Your task to perform on an android device: Empty the shopping cart on amazon. Search for "bose soundsport free" on amazon, select the first entry, add it to the cart, then select checkout. Image 0: 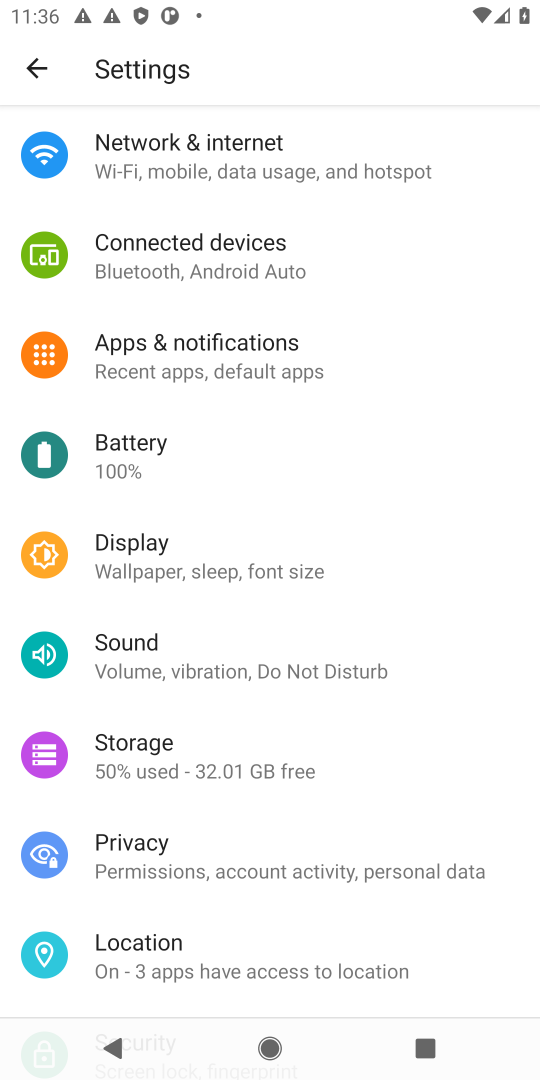
Step 0: press home button
Your task to perform on an android device: Empty the shopping cart on amazon. Search for "bose soundsport free" on amazon, select the first entry, add it to the cart, then select checkout. Image 1: 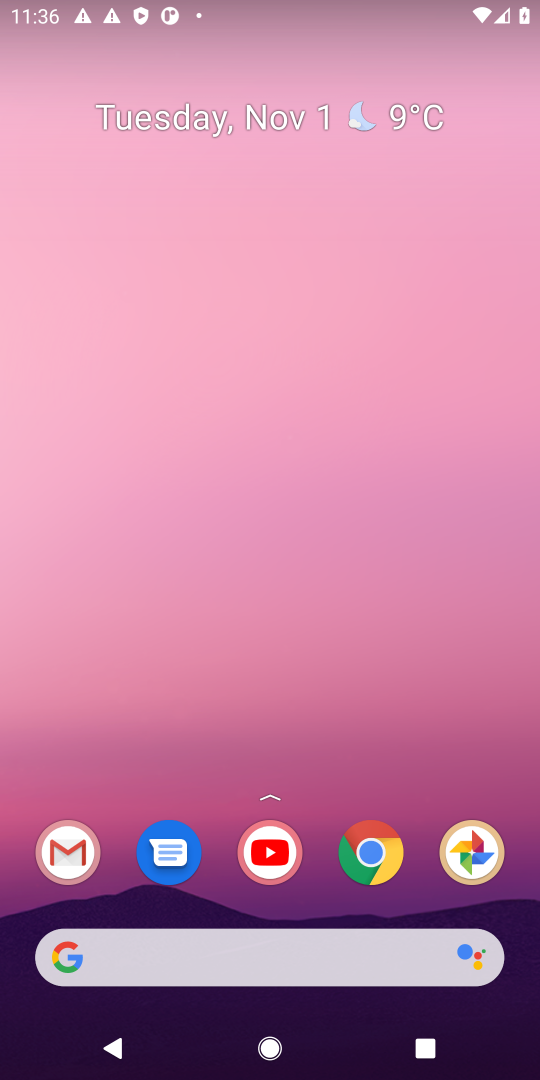
Step 1: drag from (314, 888) to (341, 209)
Your task to perform on an android device: Empty the shopping cart on amazon. Search for "bose soundsport free" on amazon, select the first entry, add it to the cart, then select checkout. Image 2: 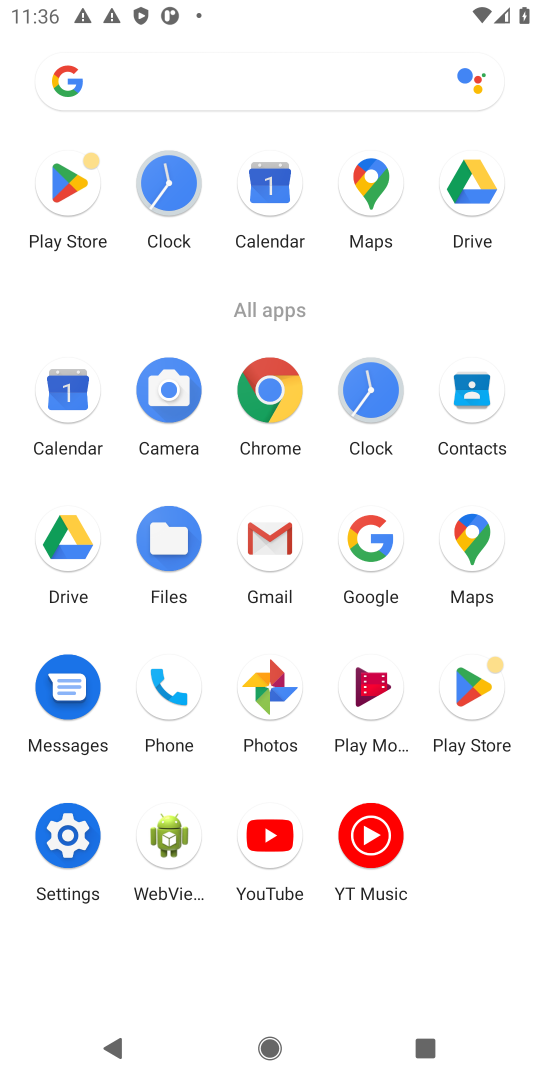
Step 2: click (383, 567)
Your task to perform on an android device: Empty the shopping cart on amazon. Search for "bose soundsport free" on amazon, select the first entry, add it to the cart, then select checkout. Image 3: 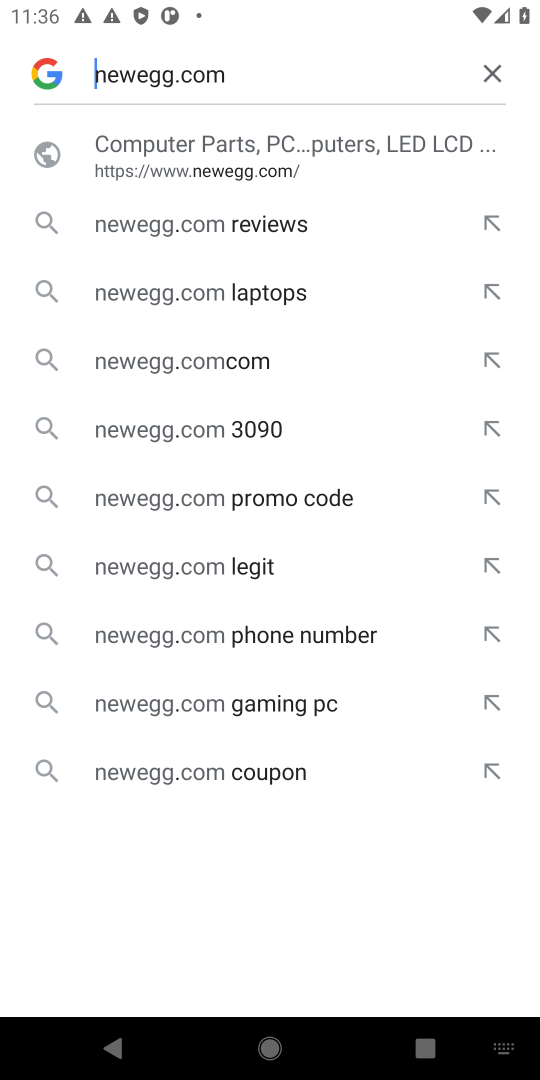
Step 3: click (499, 75)
Your task to perform on an android device: Empty the shopping cart on amazon. Search for "bose soundsport free" on amazon, select the first entry, add it to the cart, then select checkout. Image 4: 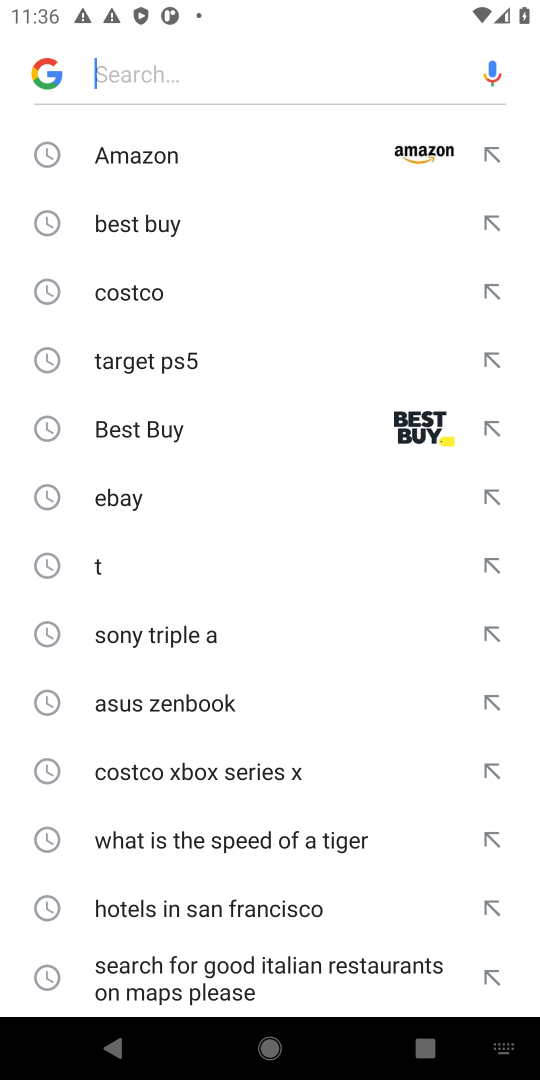
Step 4: type "amazon"
Your task to perform on an android device: Empty the shopping cart on amazon. Search for "bose soundsport free" on amazon, select the first entry, add it to the cart, then select checkout. Image 5: 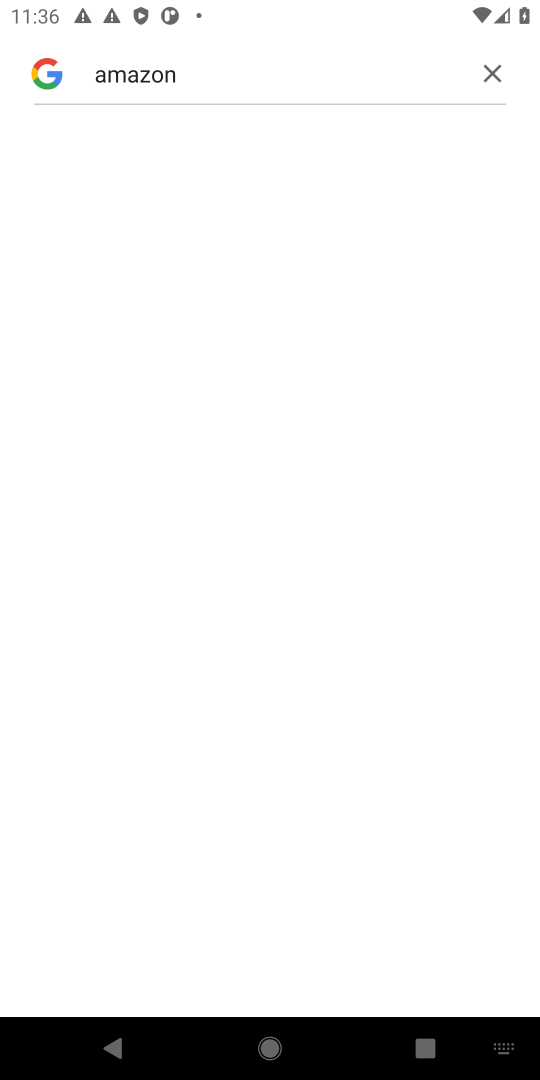
Step 5: click (249, 225)
Your task to perform on an android device: Empty the shopping cart on amazon. Search for "bose soundsport free" on amazon, select the first entry, add it to the cart, then select checkout. Image 6: 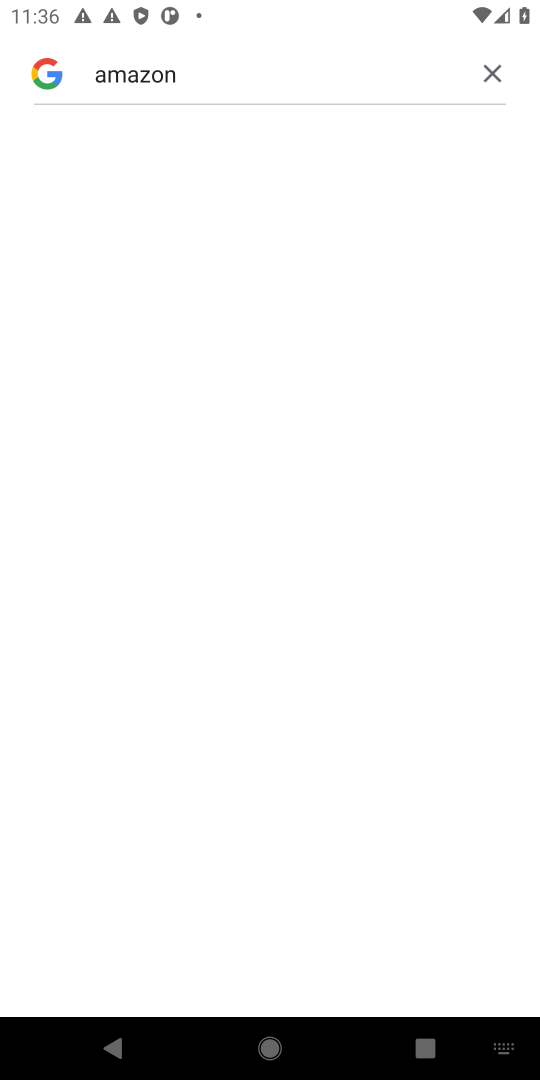
Step 6: click (487, 78)
Your task to perform on an android device: Empty the shopping cart on amazon. Search for "bose soundsport free" on amazon, select the first entry, add it to the cart, then select checkout. Image 7: 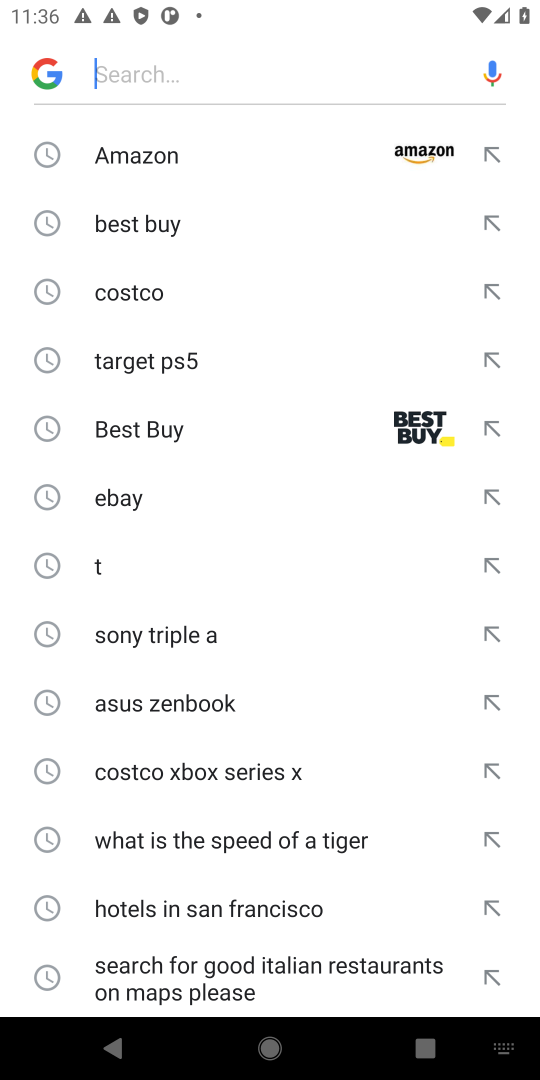
Step 7: click (286, 151)
Your task to perform on an android device: Empty the shopping cart on amazon. Search for "bose soundsport free" on amazon, select the first entry, add it to the cart, then select checkout. Image 8: 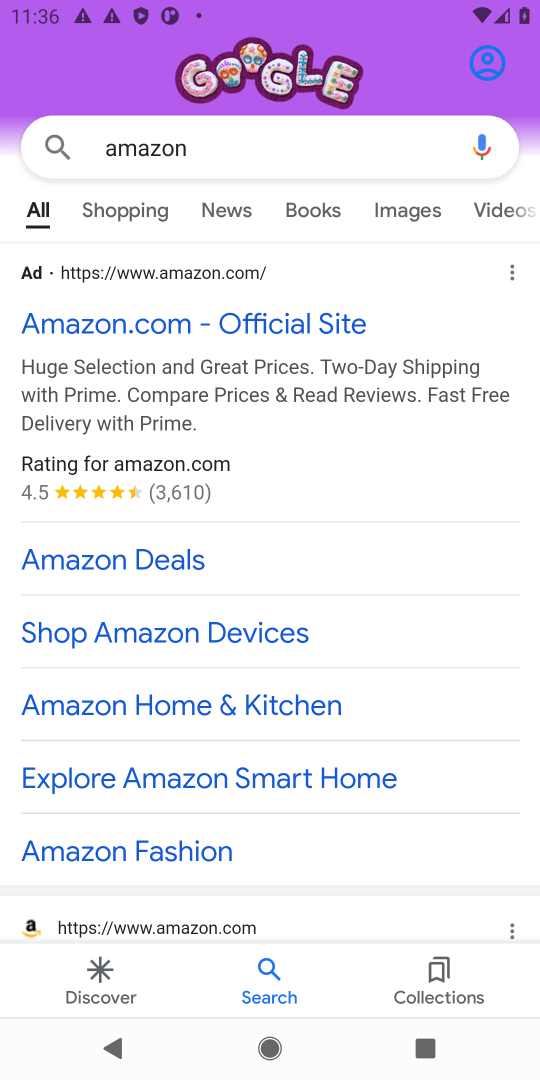
Step 8: click (236, 318)
Your task to perform on an android device: Empty the shopping cart on amazon. Search for "bose soundsport free" on amazon, select the first entry, add it to the cart, then select checkout. Image 9: 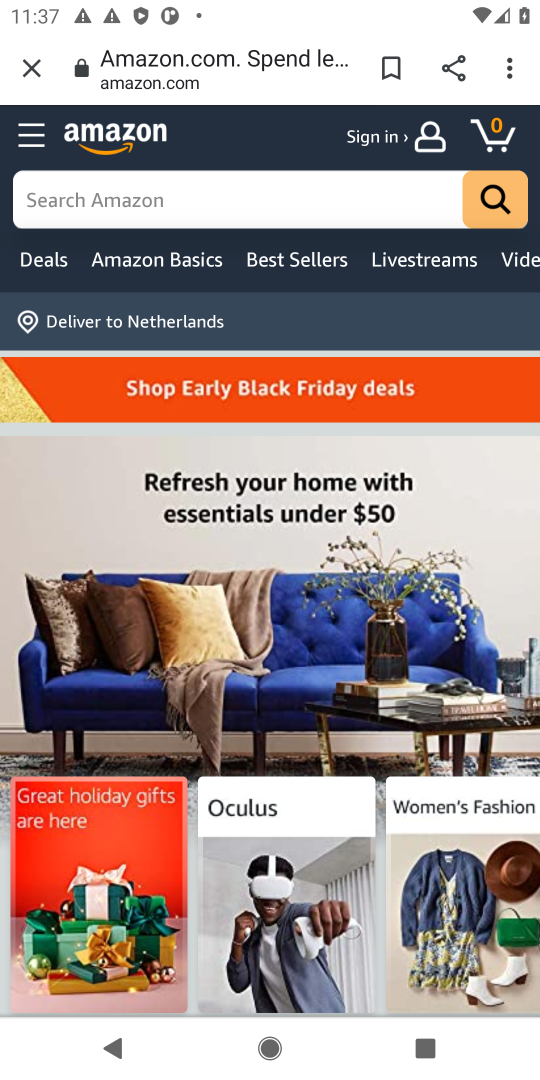
Step 9: click (365, 203)
Your task to perform on an android device: Empty the shopping cart on amazon. Search for "bose soundsport free" on amazon, select the first entry, add it to the cart, then select checkout. Image 10: 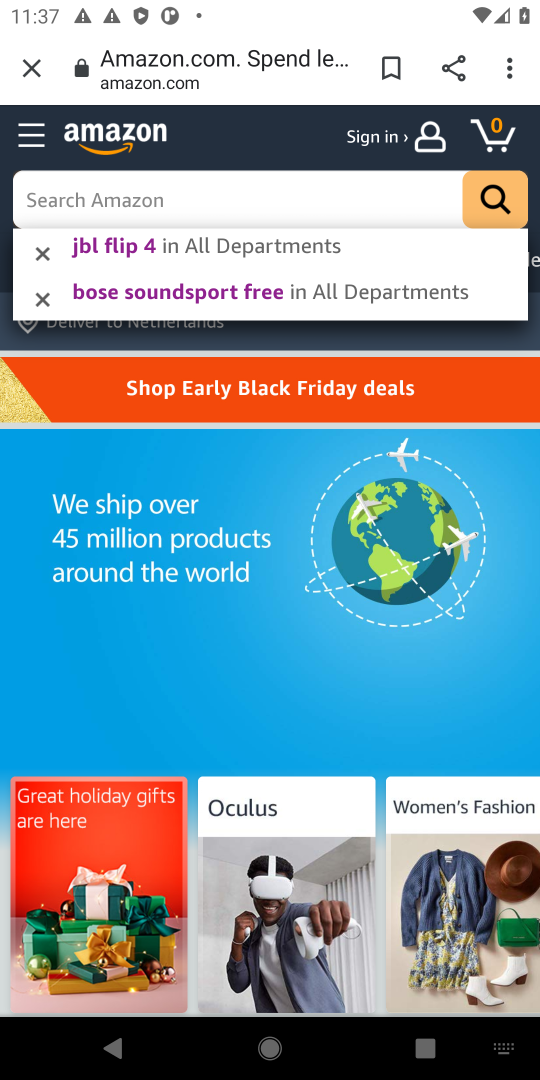
Step 10: type "bose soundsport free"
Your task to perform on an android device: Empty the shopping cart on amazon. Search for "bose soundsport free" on amazon, select the first entry, add it to the cart, then select checkout. Image 11: 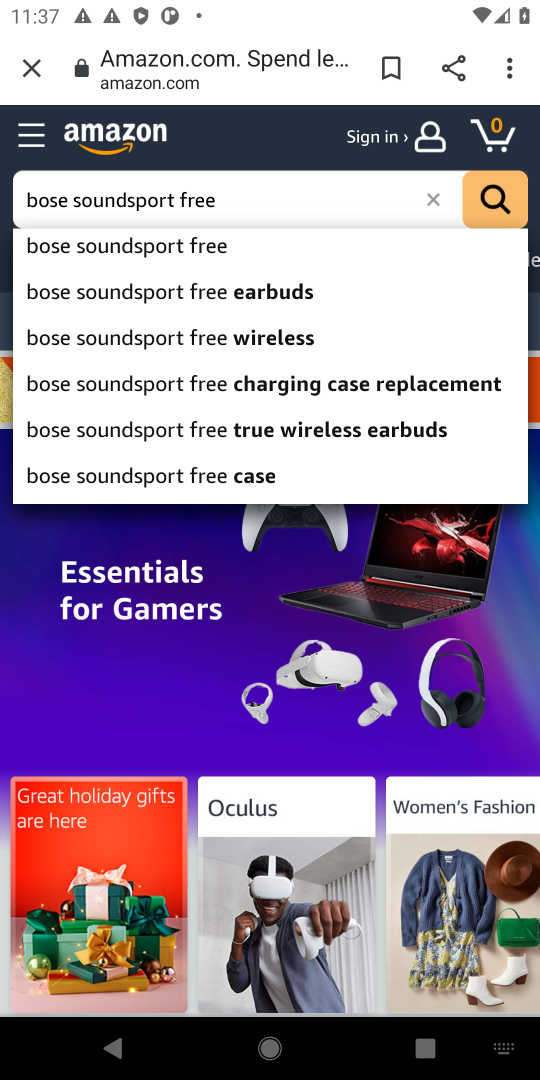
Step 11: click (269, 244)
Your task to perform on an android device: Empty the shopping cart on amazon. Search for "bose soundsport free" on amazon, select the first entry, add it to the cart, then select checkout. Image 12: 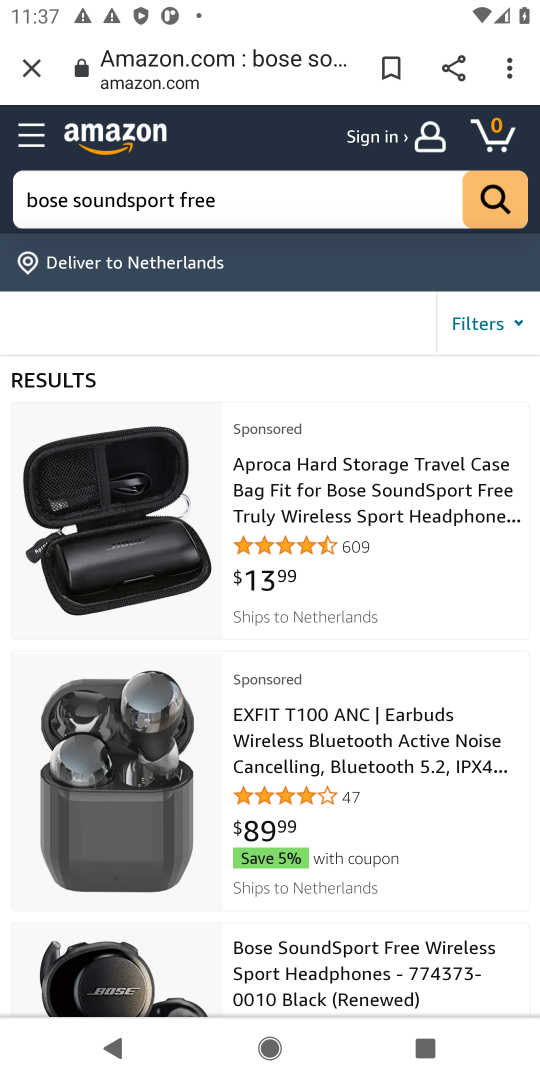
Step 12: click (241, 522)
Your task to perform on an android device: Empty the shopping cart on amazon. Search for "bose soundsport free" on amazon, select the first entry, add it to the cart, then select checkout. Image 13: 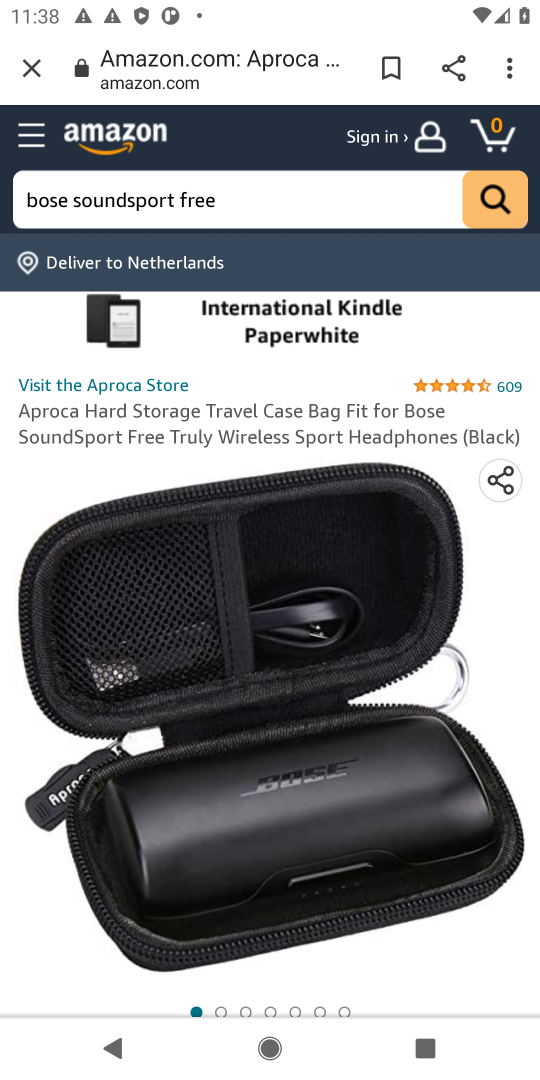
Step 13: drag from (334, 658) to (343, 417)
Your task to perform on an android device: Empty the shopping cart on amazon. Search for "bose soundsport free" on amazon, select the first entry, add it to the cart, then select checkout. Image 14: 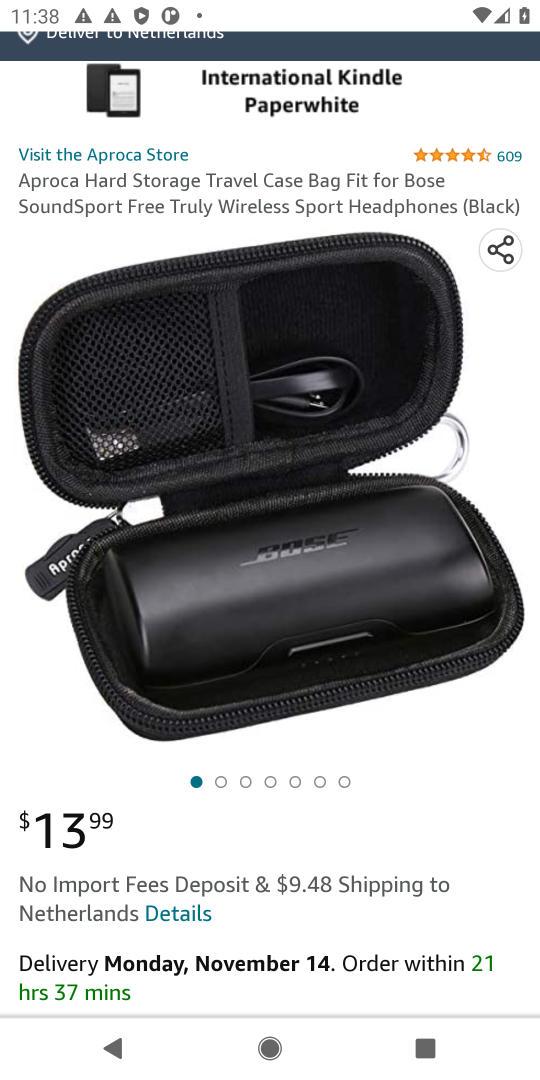
Step 14: drag from (362, 752) to (362, 377)
Your task to perform on an android device: Empty the shopping cart on amazon. Search for "bose soundsport free" on amazon, select the first entry, add it to the cart, then select checkout. Image 15: 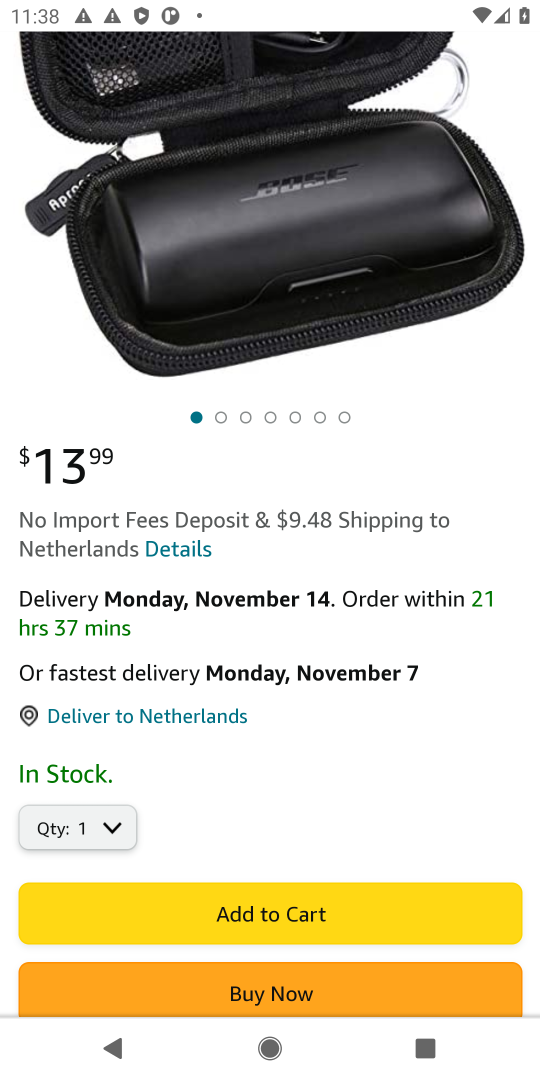
Step 15: drag from (335, 662) to (335, 338)
Your task to perform on an android device: Empty the shopping cart on amazon. Search for "bose soundsport free" on amazon, select the first entry, add it to the cart, then select checkout. Image 16: 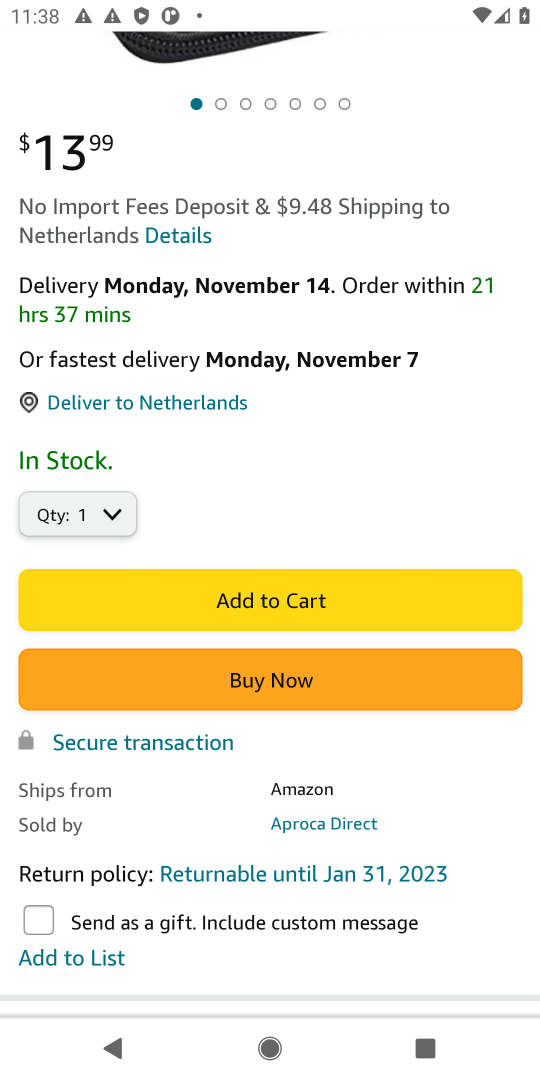
Step 16: click (311, 602)
Your task to perform on an android device: Empty the shopping cart on amazon. Search for "bose soundsport free" on amazon, select the first entry, add it to the cart, then select checkout. Image 17: 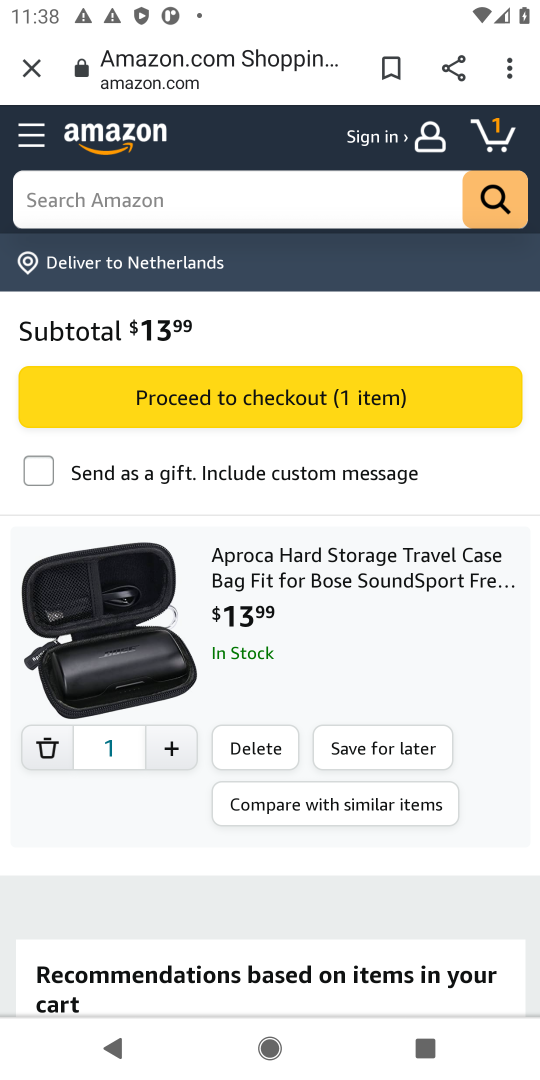
Step 17: click (321, 405)
Your task to perform on an android device: Empty the shopping cart on amazon. Search for "bose soundsport free" on amazon, select the first entry, add it to the cart, then select checkout. Image 18: 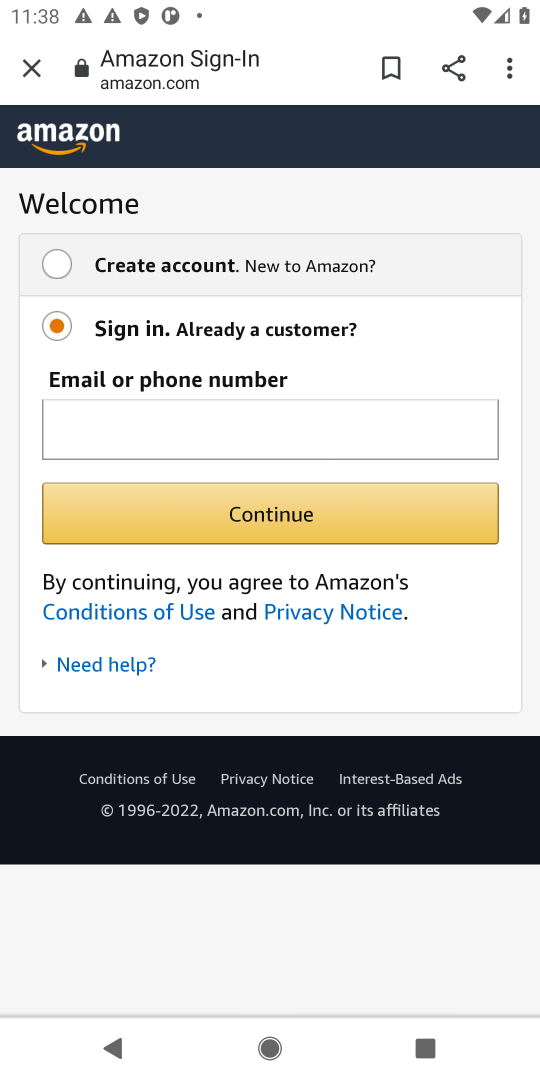
Step 18: task complete